Your task to perform on an android device: open app "Roku - Official Remote Control" (install if not already installed) and enter user name: "autumnal@gmail.com" and password: "stuffing" Image 0: 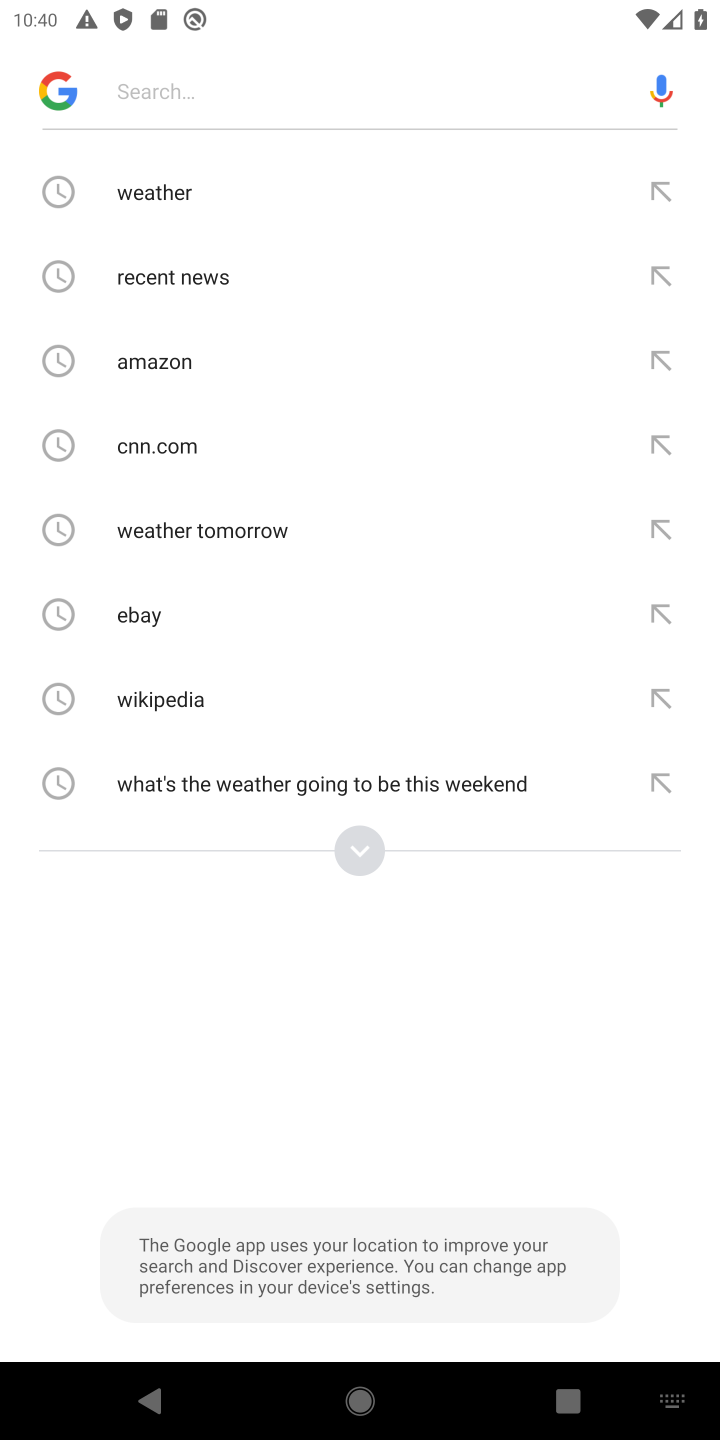
Step 0: press home button
Your task to perform on an android device: open app "Roku - Official Remote Control" (install if not already installed) and enter user name: "autumnal@gmail.com" and password: "stuffing" Image 1: 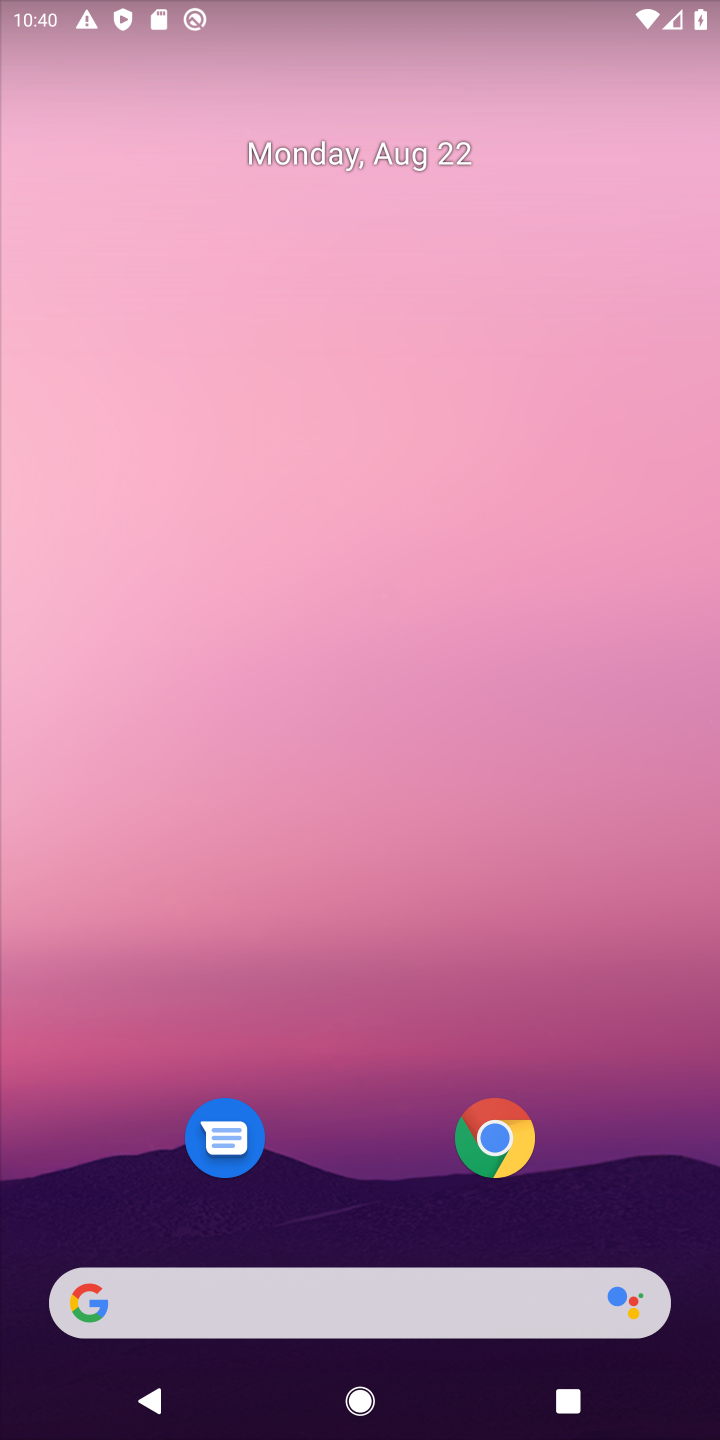
Step 1: drag from (330, 1209) to (330, 218)
Your task to perform on an android device: open app "Roku - Official Remote Control" (install if not already installed) and enter user name: "autumnal@gmail.com" and password: "stuffing" Image 2: 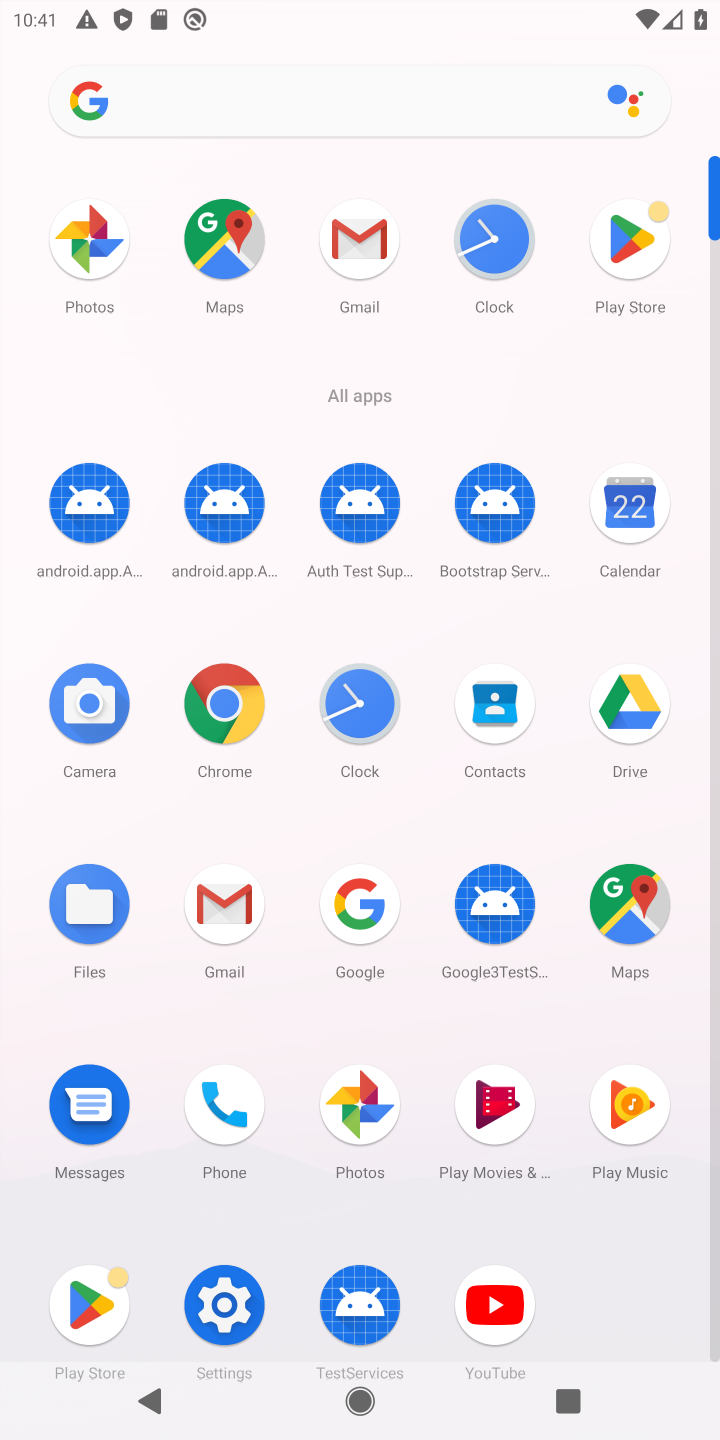
Step 2: click (96, 1308)
Your task to perform on an android device: open app "Roku - Official Remote Control" (install if not already installed) and enter user name: "autumnal@gmail.com" and password: "stuffing" Image 3: 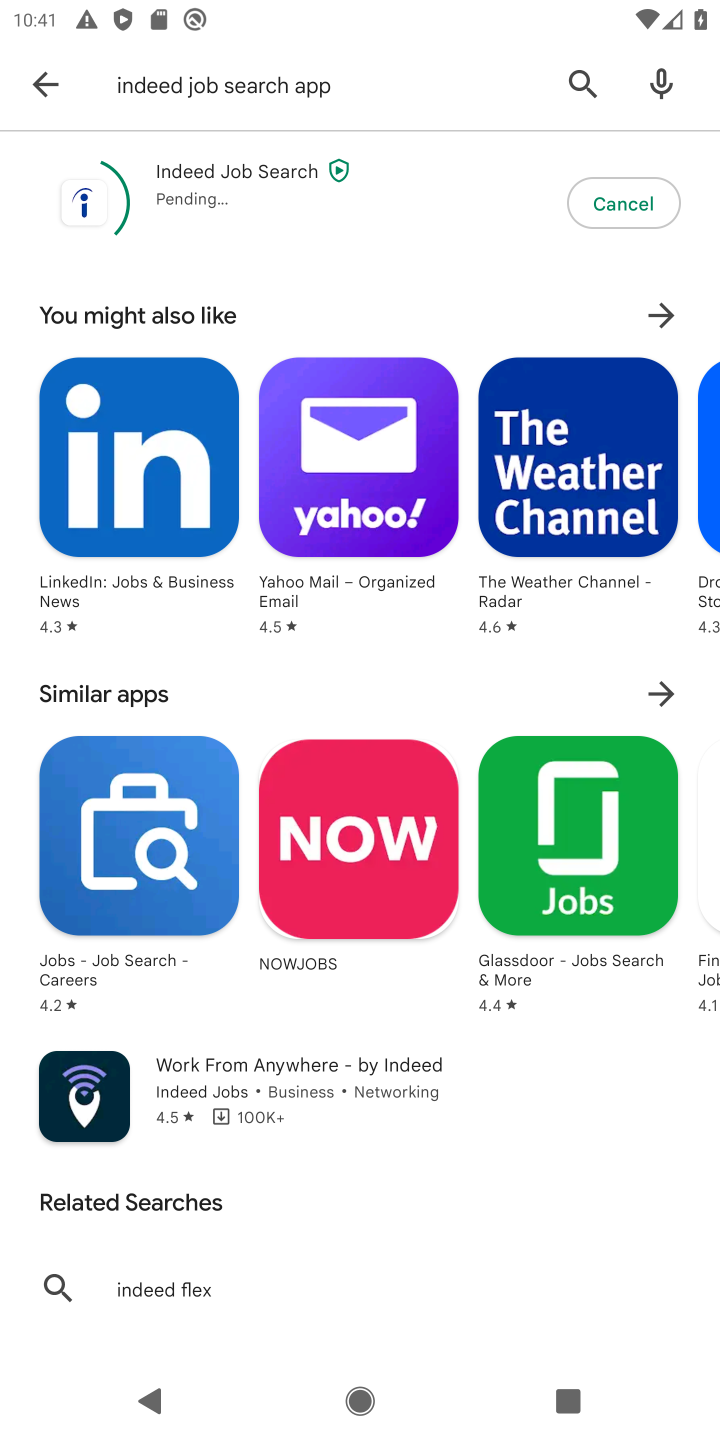
Step 3: task complete